Your task to perform on an android device: turn off airplane mode Image 0: 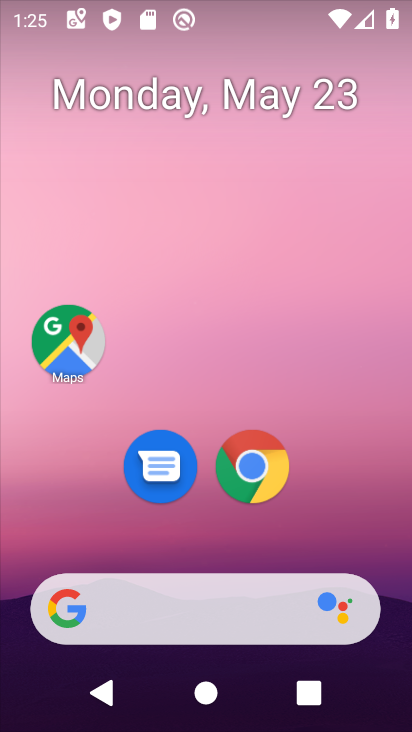
Step 0: drag from (327, 533) to (224, 16)
Your task to perform on an android device: turn off airplane mode Image 1: 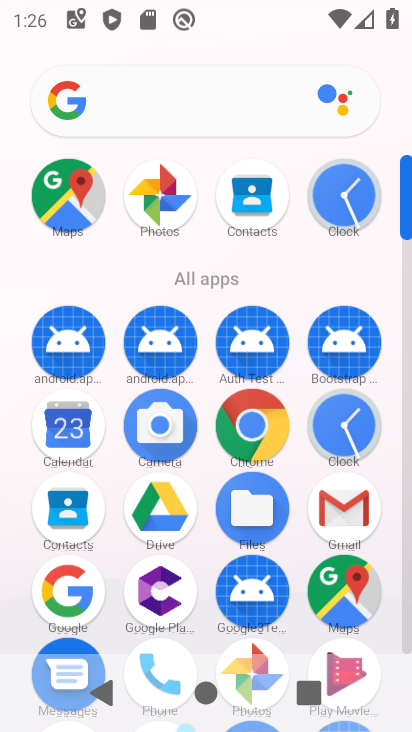
Step 1: drag from (205, 575) to (192, 266)
Your task to perform on an android device: turn off airplane mode Image 2: 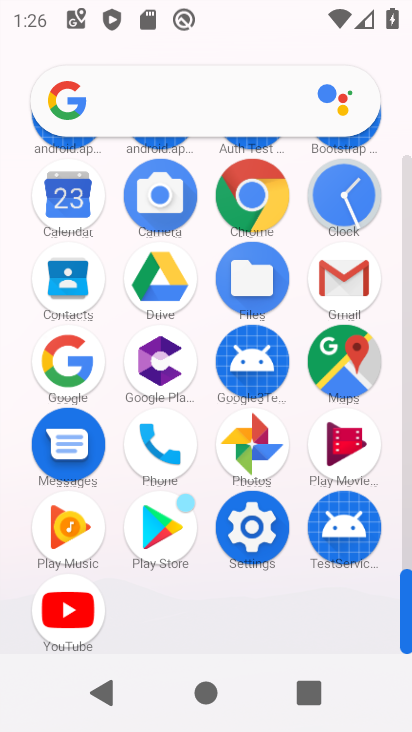
Step 2: click (254, 526)
Your task to perform on an android device: turn off airplane mode Image 3: 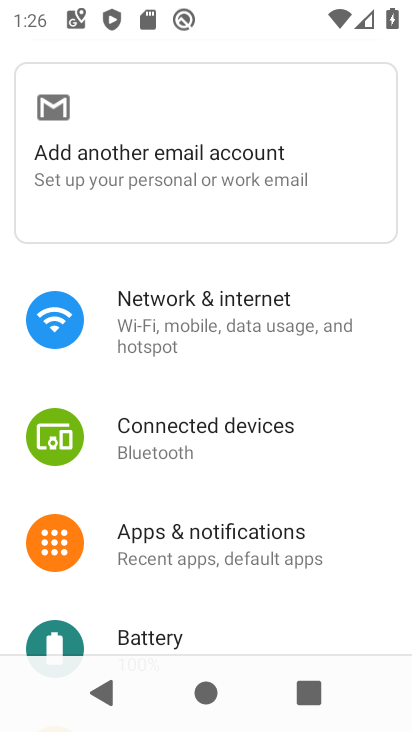
Step 3: click (211, 329)
Your task to perform on an android device: turn off airplane mode Image 4: 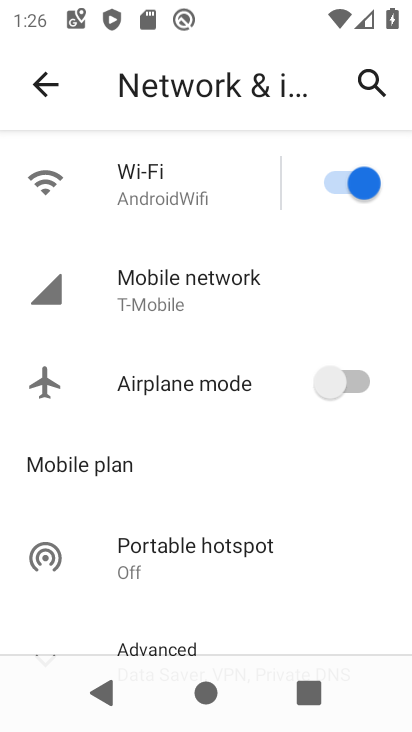
Step 4: task complete